Your task to perform on an android device: toggle airplane mode Image 0: 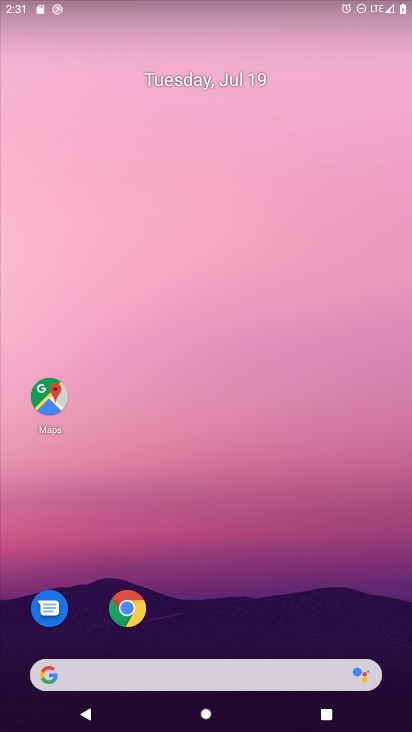
Step 0: drag from (232, 585) to (186, 141)
Your task to perform on an android device: toggle airplane mode Image 1: 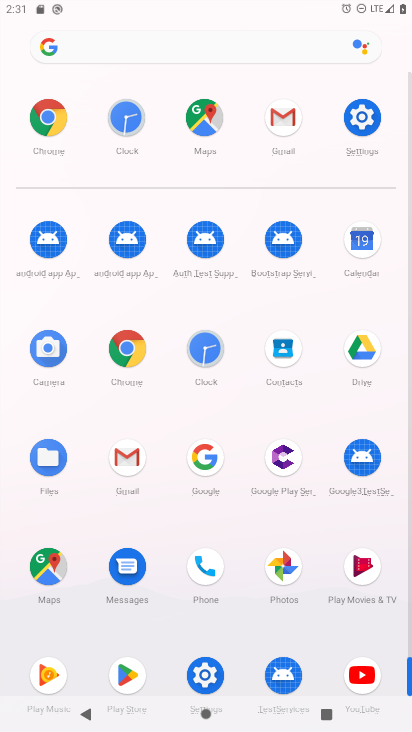
Step 1: click (212, 676)
Your task to perform on an android device: toggle airplane mode Image 2: 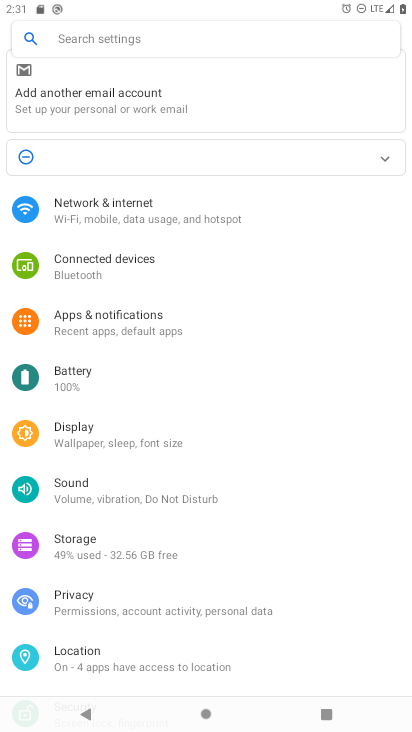
Step 2: click (172, 225)
Your task to perform on an android device: toggle airplane mode Image 3: 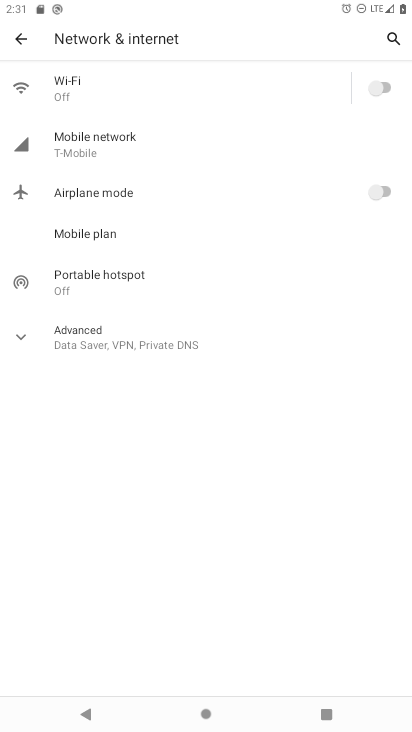
Step 3: click (383, 197)
Your task to perform on an android device: toggle airplane mode Image 4: 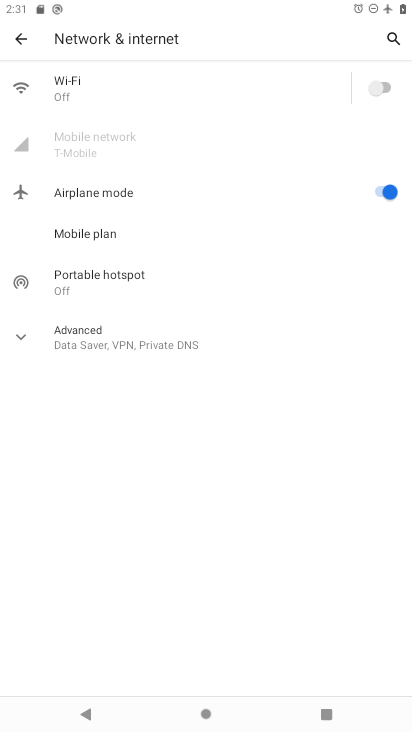
Step 4: task complete